Your task to perform on an android device: read, delete, or share a saved page in the chrome app Image 0: 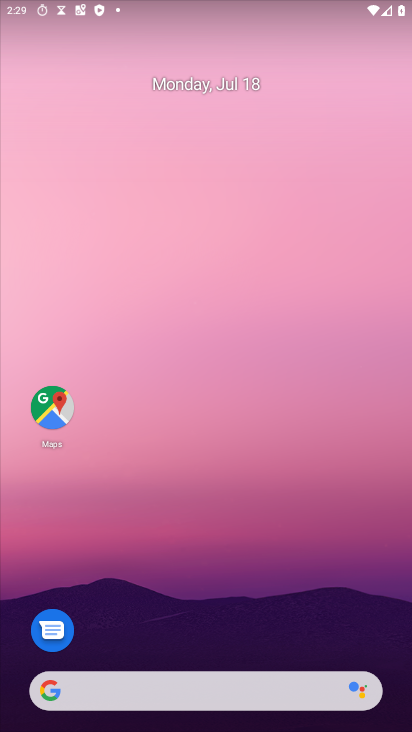
Step 0: drag from (249, 678) to (308, 14)
Your task to perform on an android device: read, delete, or share a saved page in the chrome app Image 1: 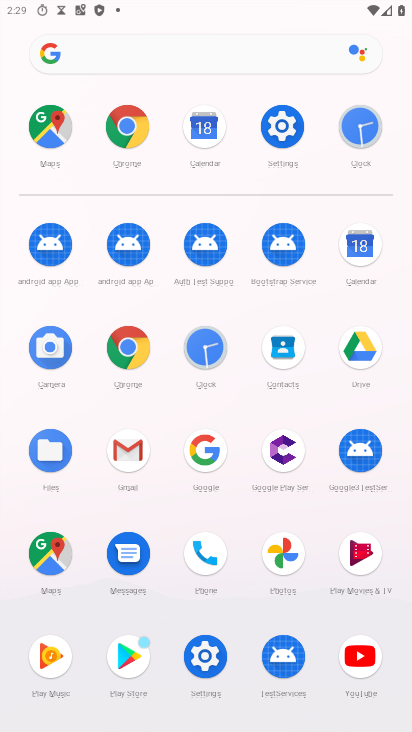
Step 1: click (131, 347)
Your task to perform on an android device: read, delete, or share a saved page in the chrome app Image 2: 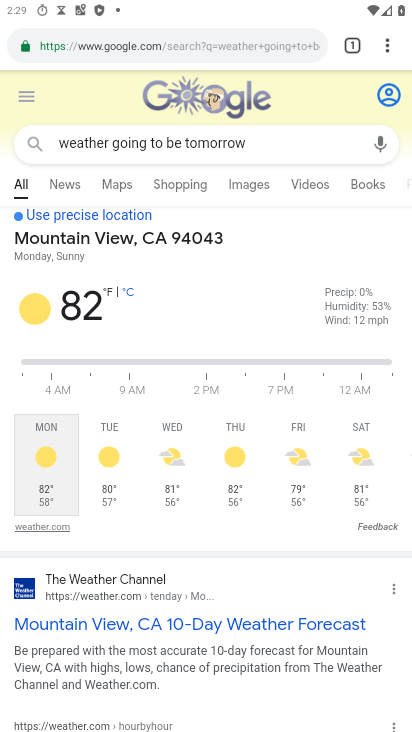
Step 2: click (386, 41)
Your task to perform on an android device: read, delete, or share a saved page in the chrome app Image 3: 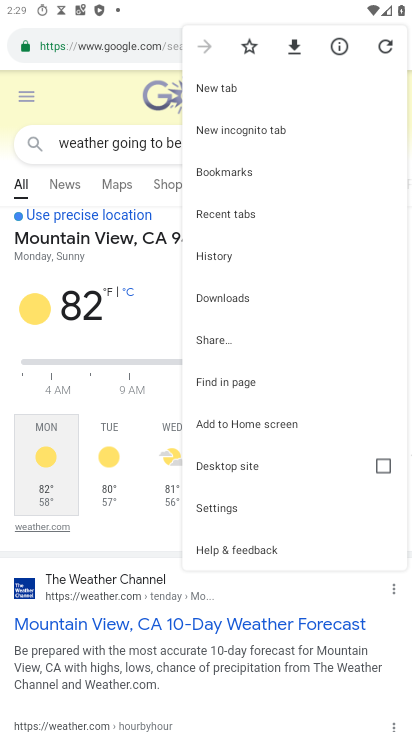
Step 3: click (235, 298)
Your task to perform on an android device: read, delete, or share a saved page in the chrome app Image 4: 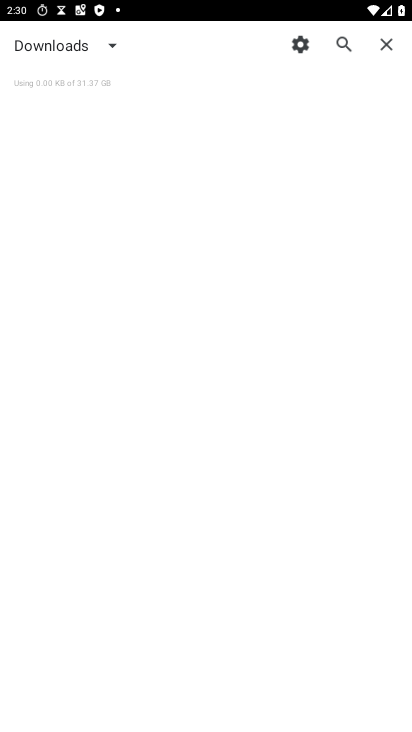
Step 4: task complete